Your task to perform on an android device: Open Wikipedia Image 0: 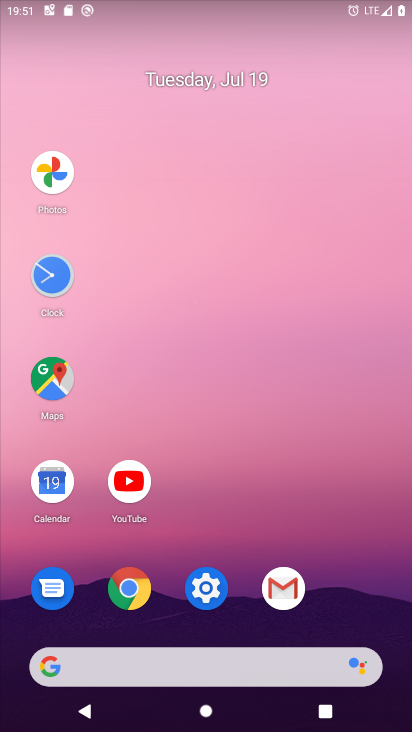
Step 0: click (130, 591)
Your task to perform on an android device: Open Wikipedia Image 1: 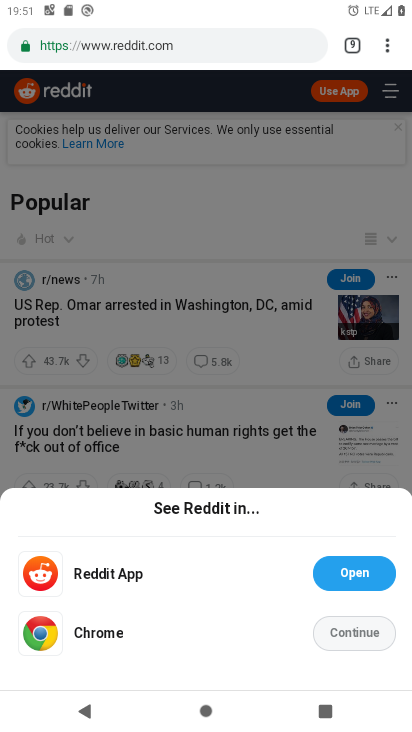
Step 1: click (389, 44)
Your task to perform on an android device: Open Wikipedia Image 2: 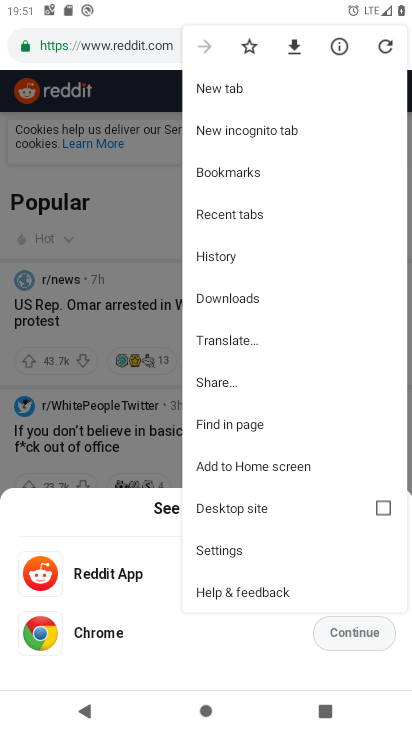
Step 2: click (220, 87)
Your task to perform on an android device: Open Wikipedia Image 3: 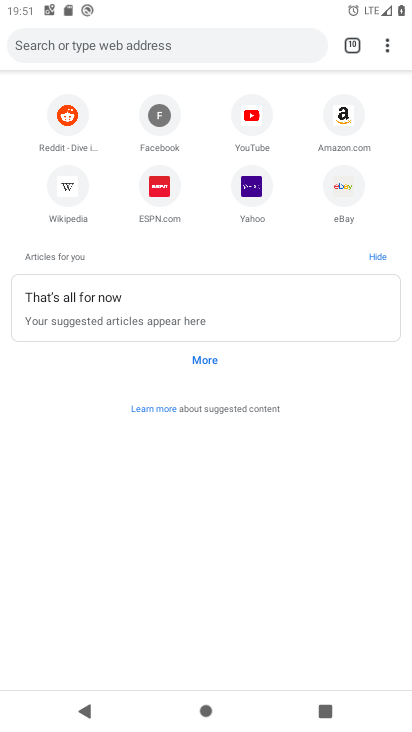
Step 3: click (61, 182)
Your task to perform on an android device: Open Wikipedia Image 4: 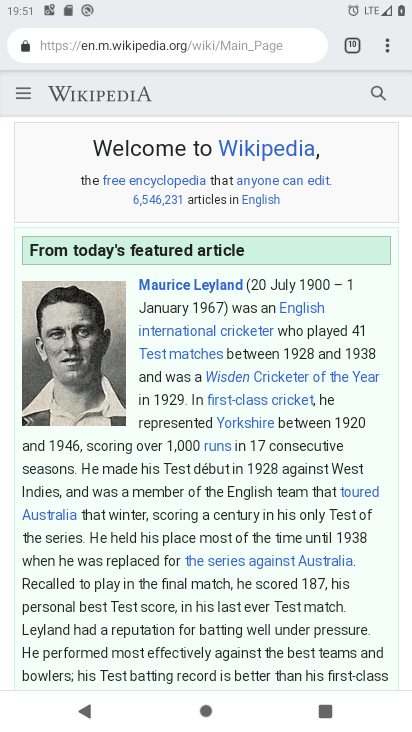
Step 4: task complete